Your task to perform on an android device: Open display settings Image 0: 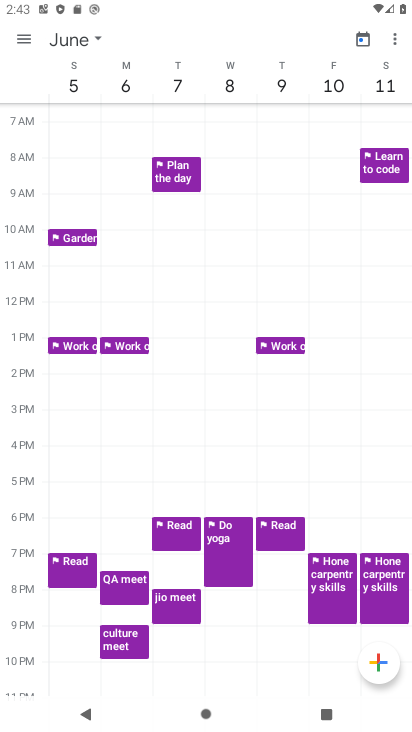
Step 0: press home button
Your task to perform on an android device: Open display settings Image 1: 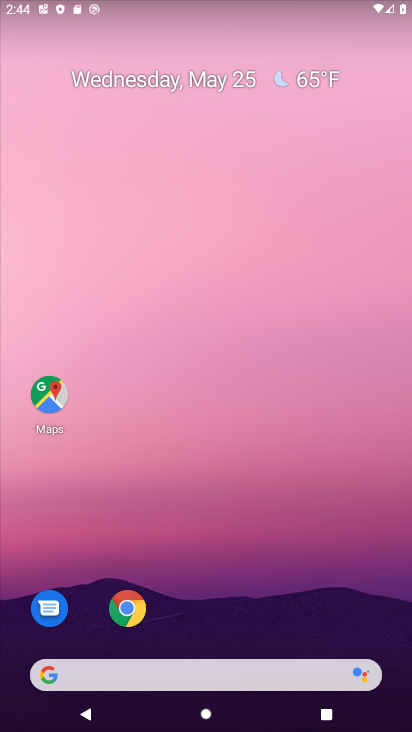
Step 1: drag from (297, 640) to (298, 2)
Your task to perform on an android device: Open display settings Image 2: 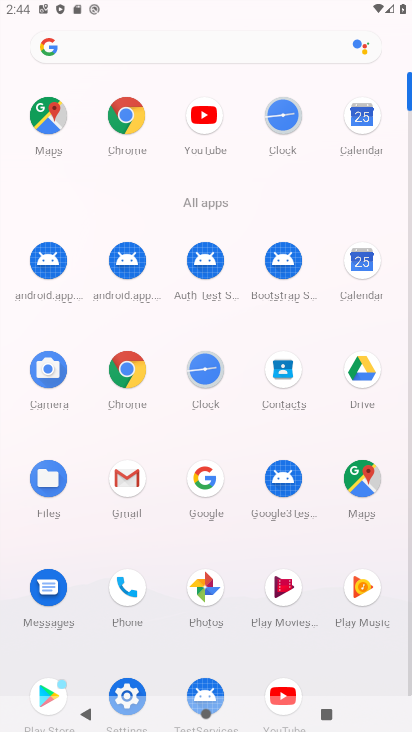
Step 2: drag from (399, 625) to (389, 561)
Your task to perform on an android device: Open display settings Image 3: 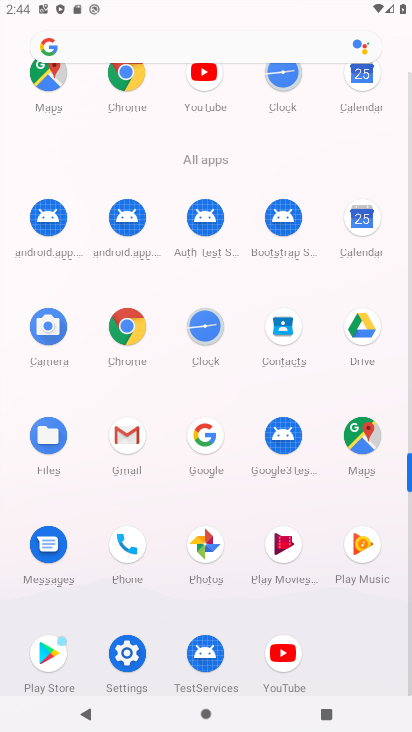
Step 3: click (130, 655)
Your task to perform on an android device: Open display settings Image 4: 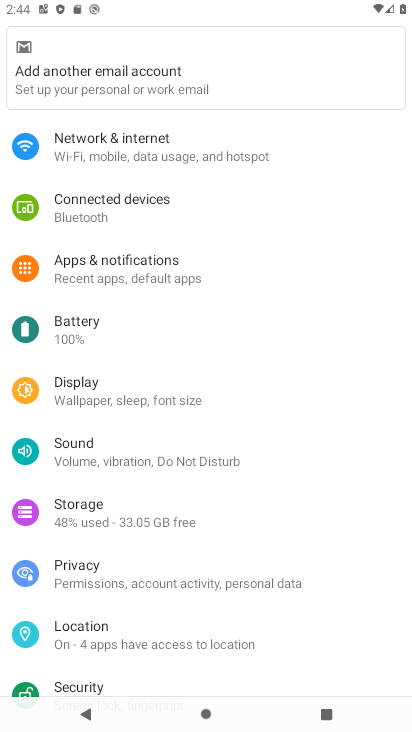
Step 4: click (81, 401)
Your task to perform on an android device: Open display settings Image 5: 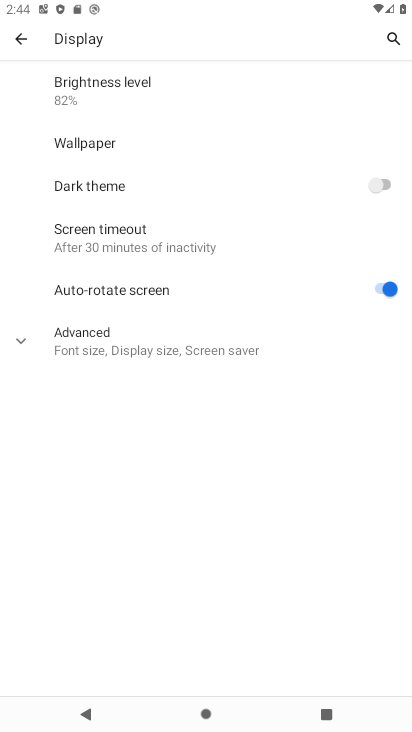
Step 5: task complete